Your task to perform on an android device: Open privacy settings Image 0: 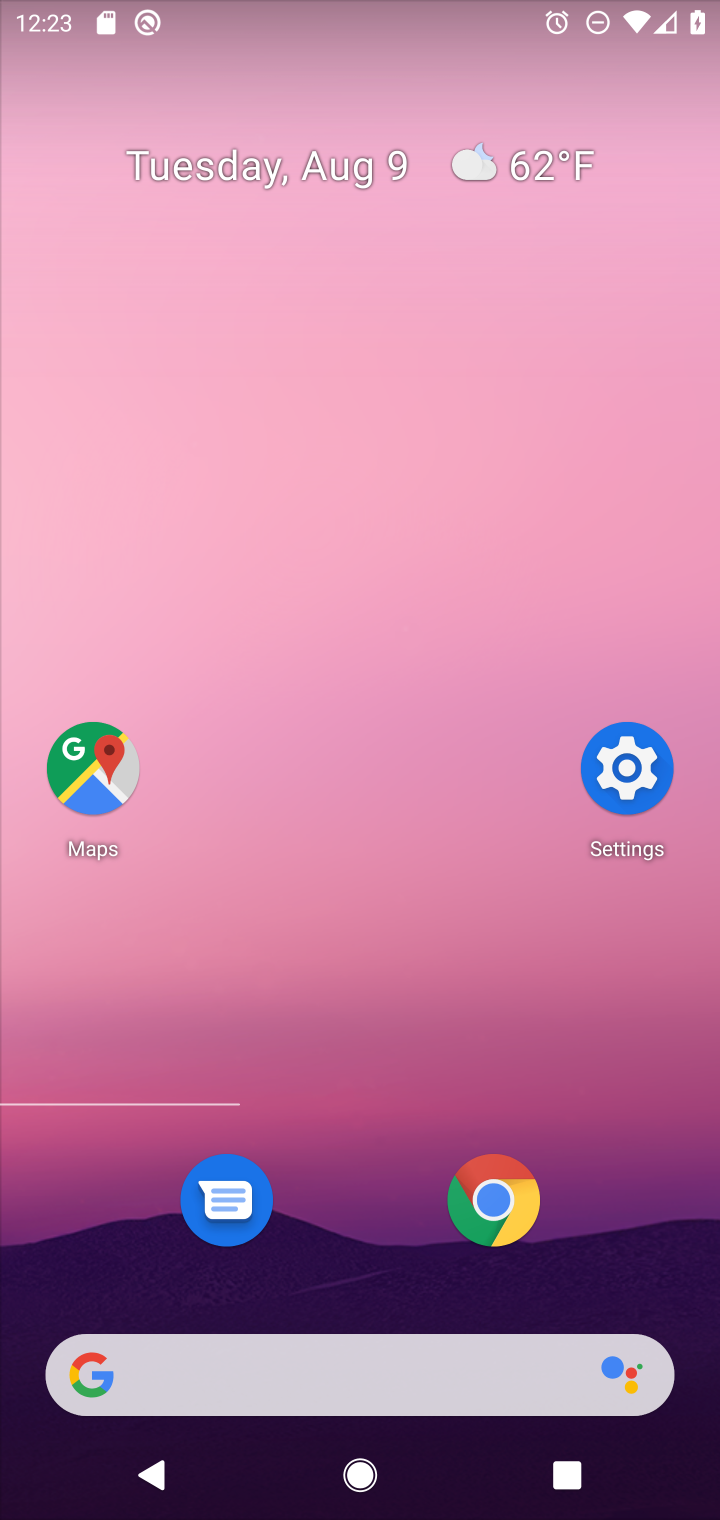
Step 0: click (637, 771)
Your task to perform on an android device: Open privacy settings Image 1: 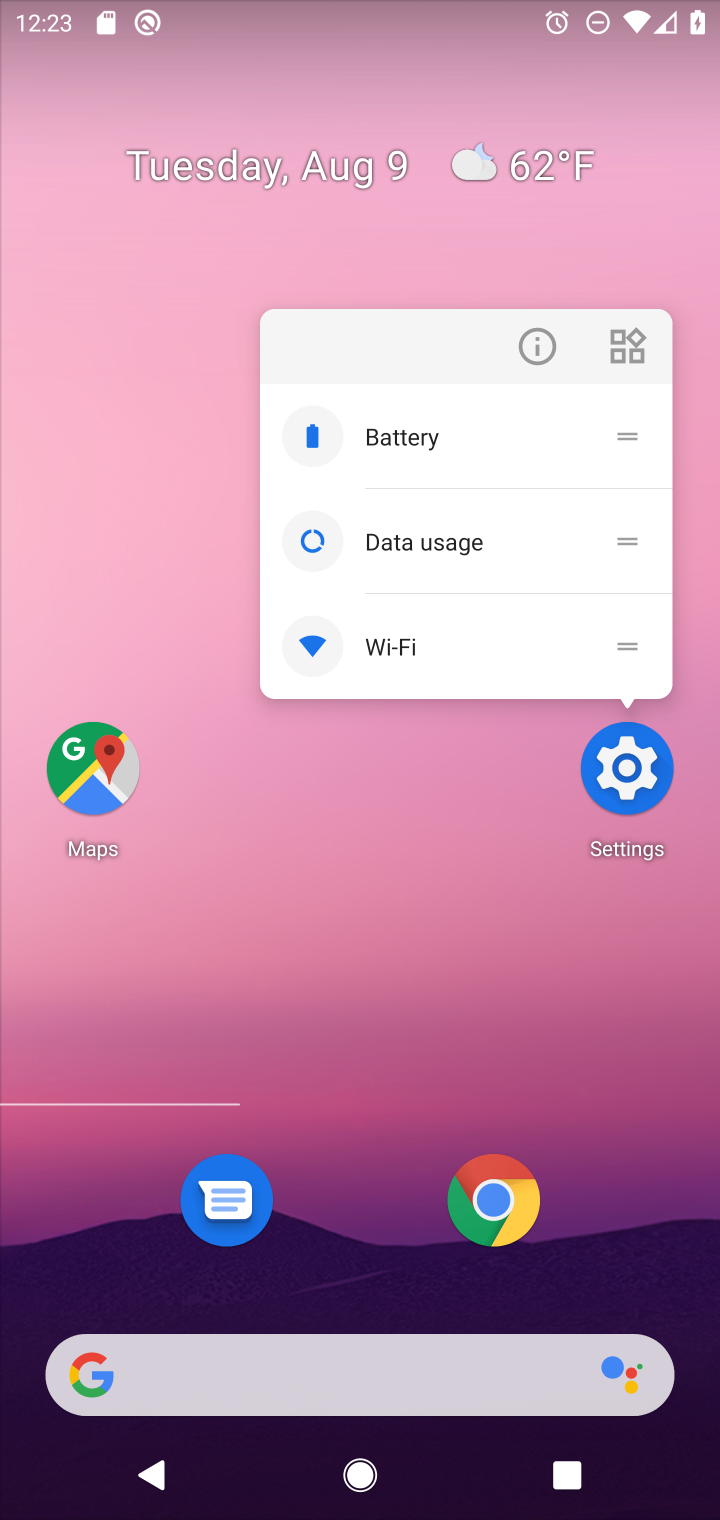
Step 1: click (615, 764)
Your task to perform on an android device: Open privacy settings Image 2: 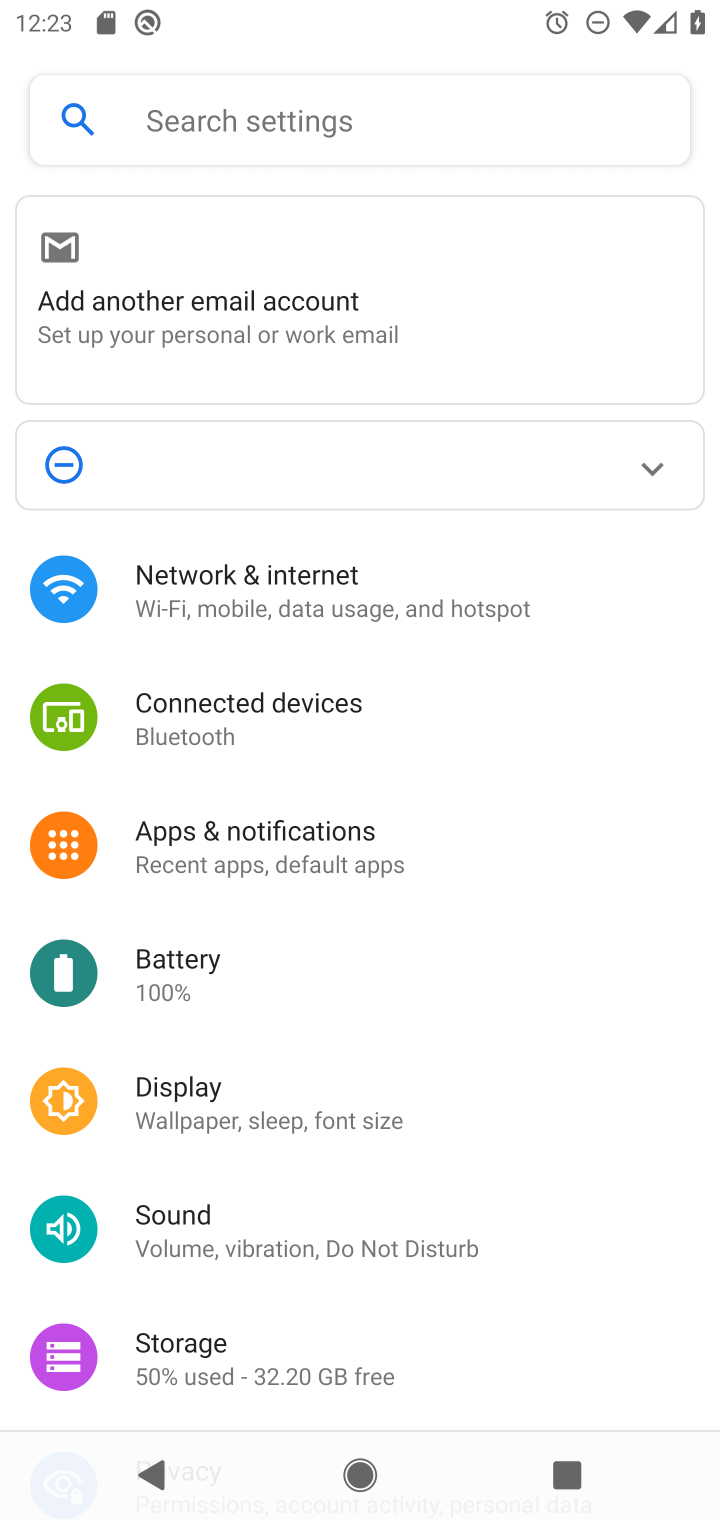
Step 2: drag from (517, 1153) to (626, 249)
Your task to perform on an android device: Open privacy settings Image 3: 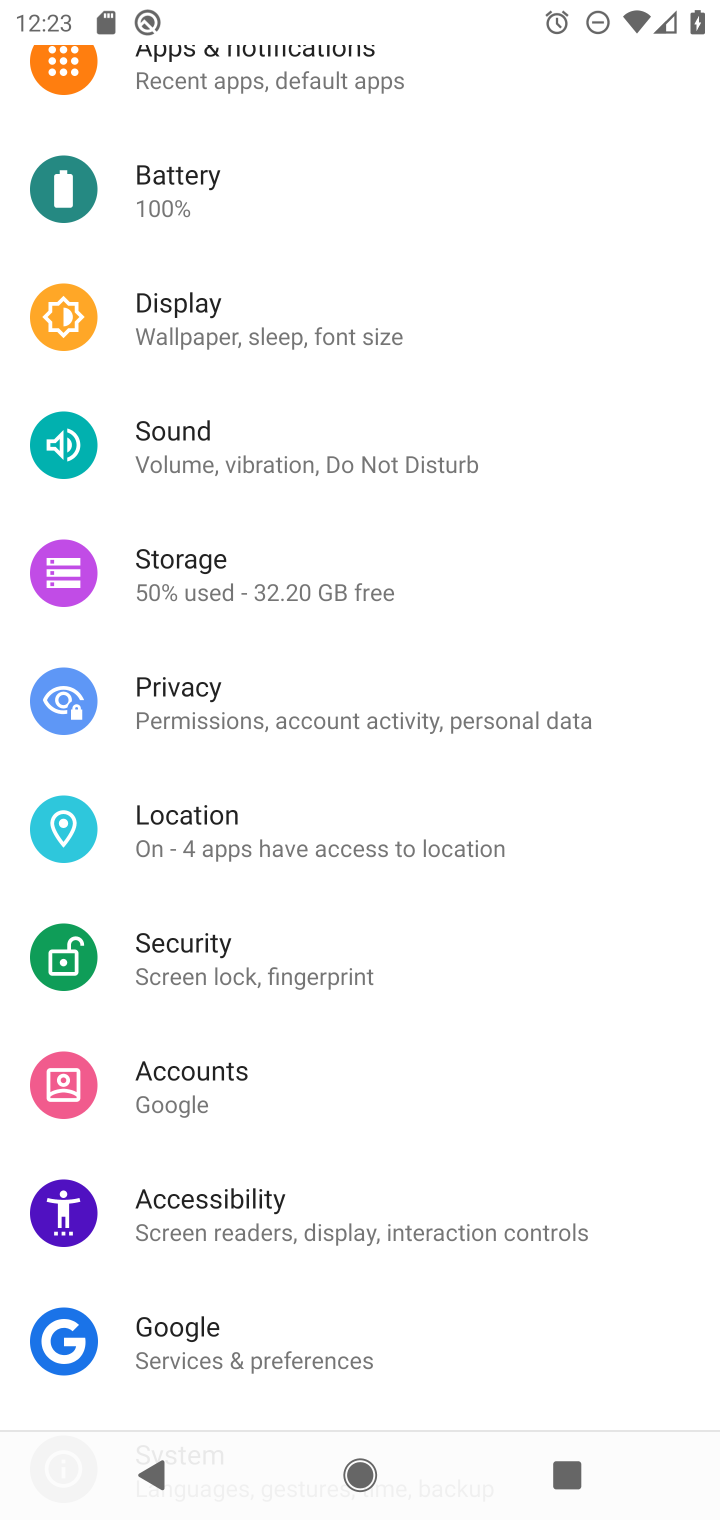
Step 3: click (201, 698)
Your task to perform on an android device: Open privacy settings Image 4: 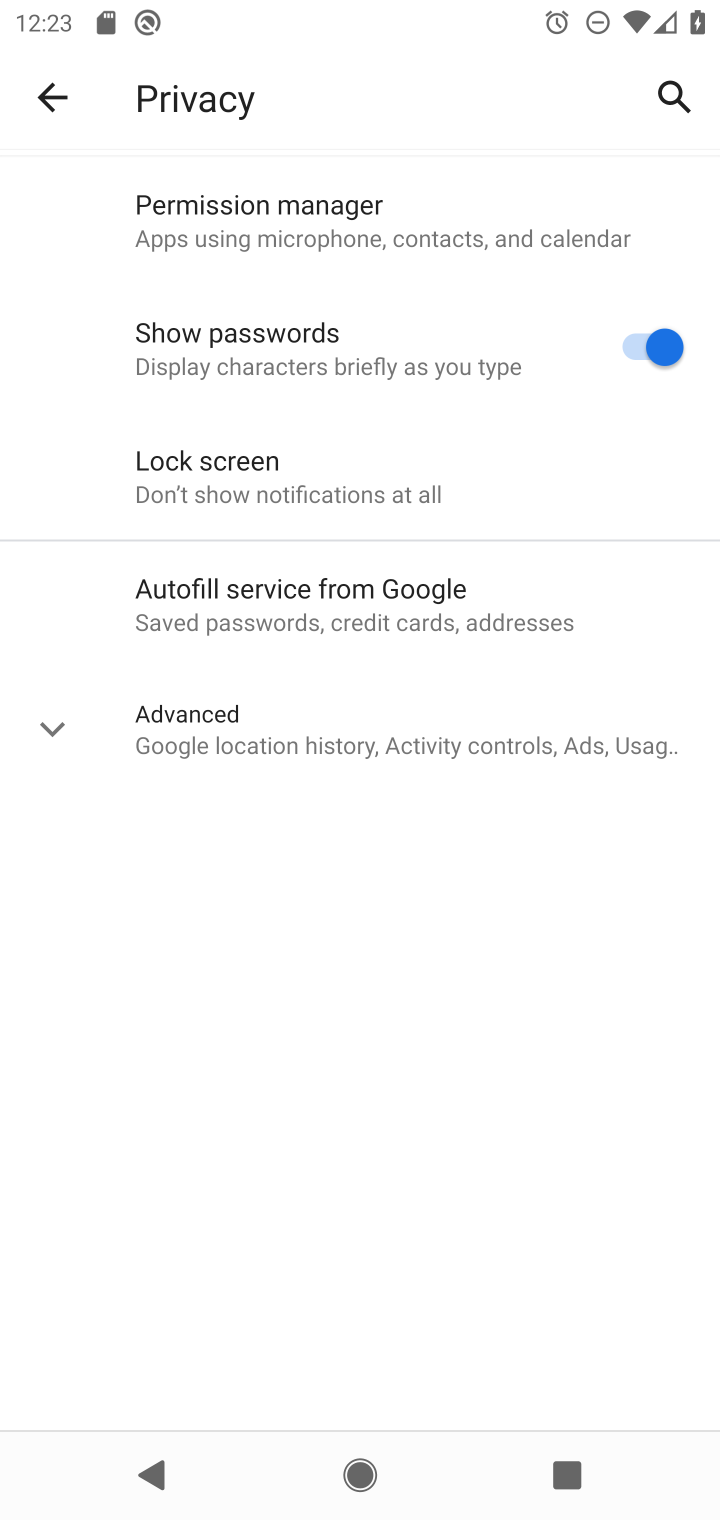
Step 4: task complete